Your task to perform on an android device: Open the stopwatch Image 0: 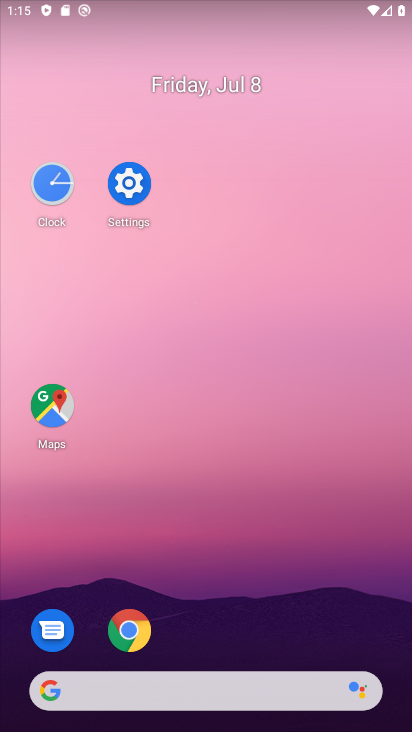
Step 0: click (58, 178)
Your task to perform on an android device: Open the stopwatch Image 1: 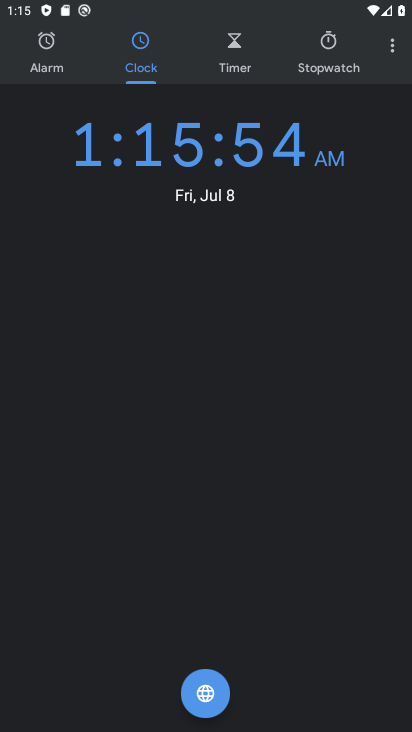
Step 1: click (331, 64)
Your task to perform on an android device: Open the stopwatch Image 2: 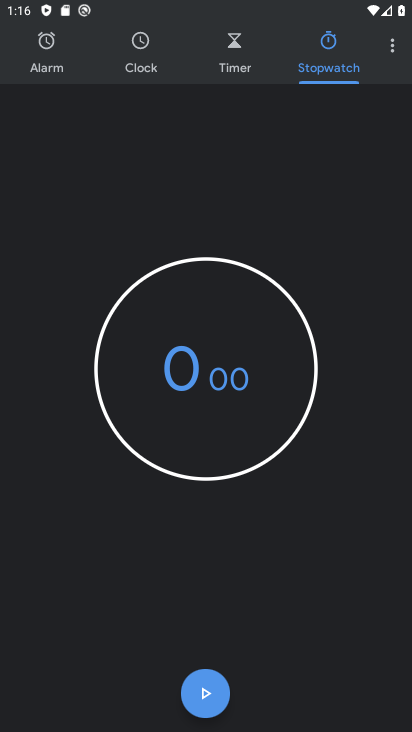
Step 2: task complete